Your task to perform on an android device: Open battery settings Image 0: 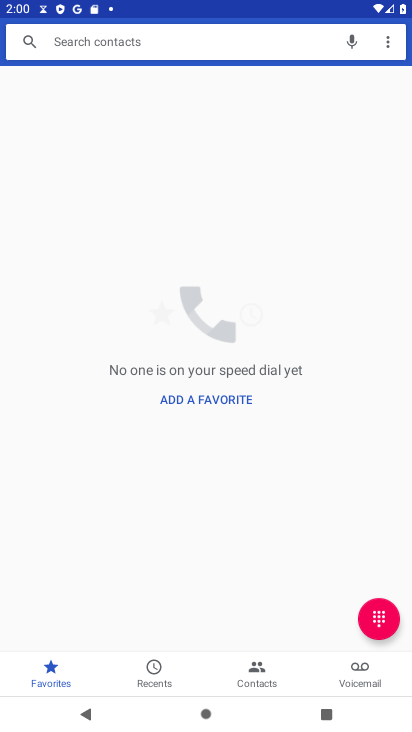
Step 0: press home button
Your task to perform on an android device: Open battery settings Image 1: 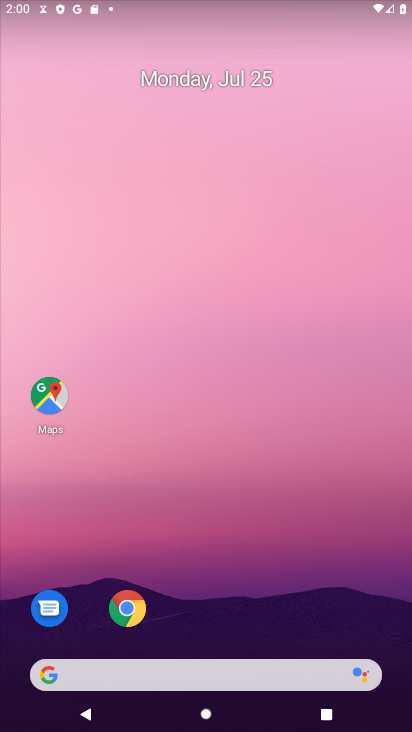
Step 1: drag from (210, 674) to (228, 33)
Your task to perform on an android device: Open battery settings Image 2: 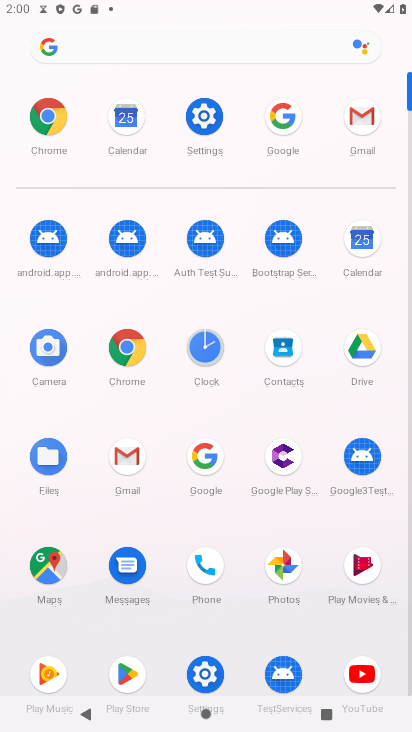
Step 2: click (205, 115)
Your task to perform on an android device: Open battery settings Image 3: 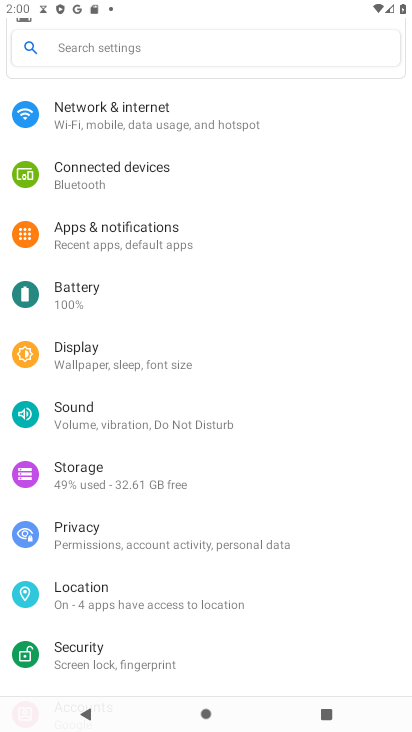
Step 3: click (68, 292)
Your task to perform on an android device: Open battery settings Image 4: 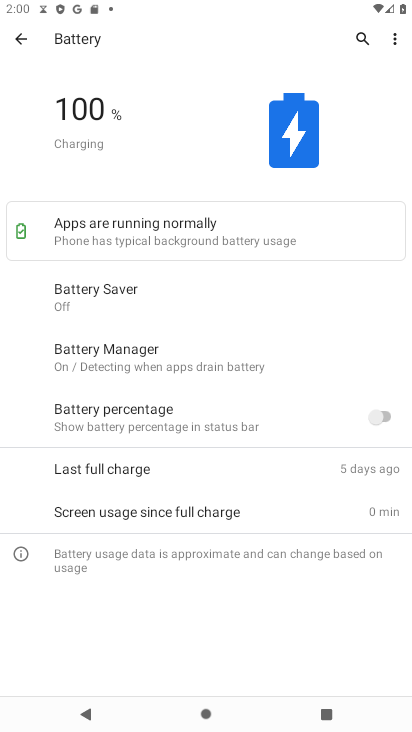
Step 4: task complete